Your task to perform on an android device: Go to sound settings Image 0: 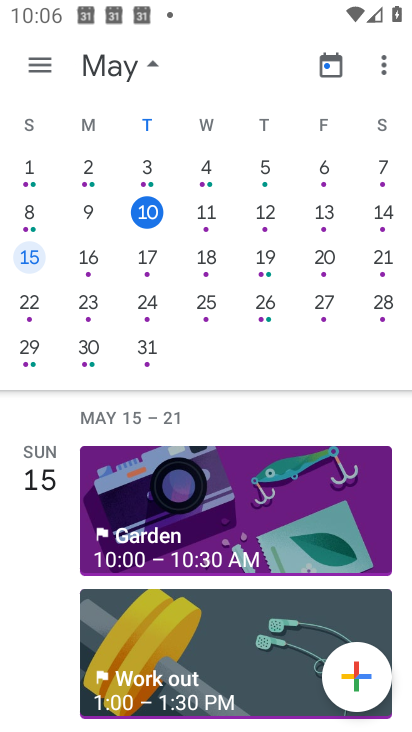
Step 0: press home button
Your task to perform on an android device: Go to sound settings Image 1: 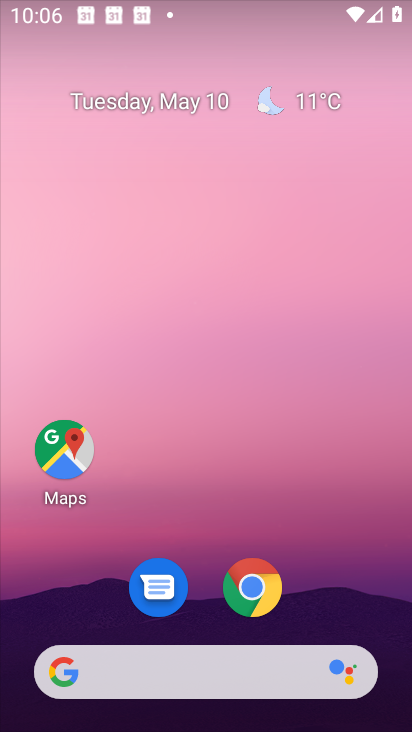
Step 1: drag from (296, 606) to (340, 77)
Your task to perform on an android device: Go to sound settings Image 2: 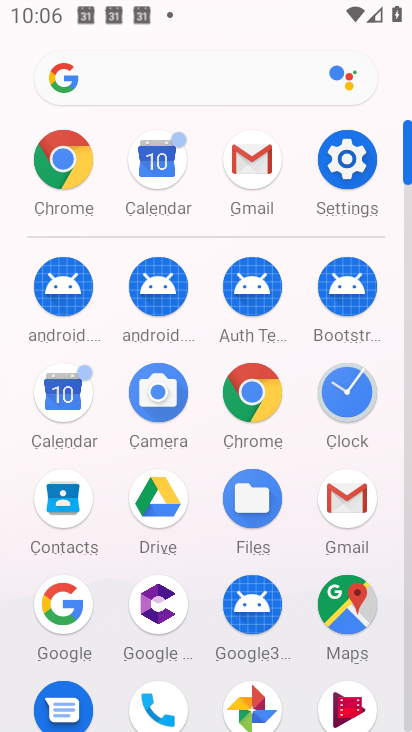
Step 2: click (350, 170)
Your task to perform on an android device: Go to sound settings Image 3: 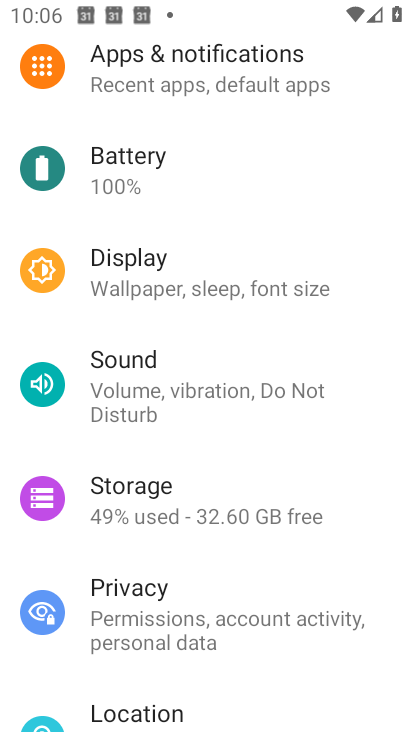
Step 3: click (215, 398)
Your task to perform on an android device: Go to sound settings Image 4: 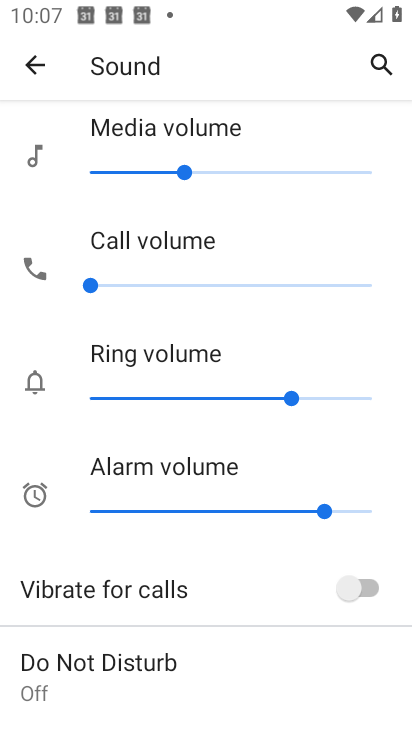
Step 4: task complete